Your task to perform on an android device: set default search engine in the chrome app Image 0: 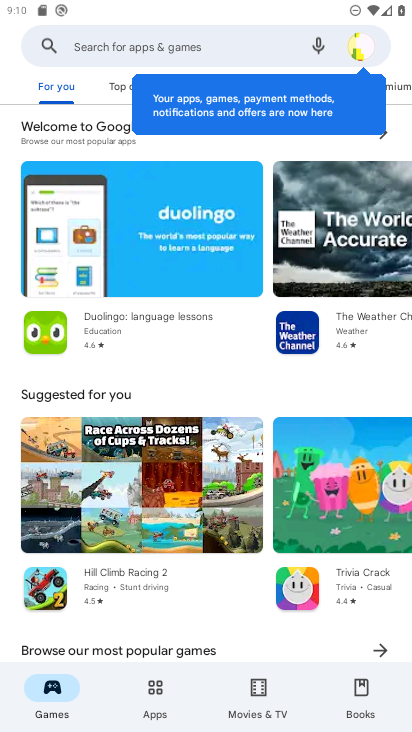
Step 0: press home button
Your task to perform on an android device: set default search engine in the chrome app Image 1: 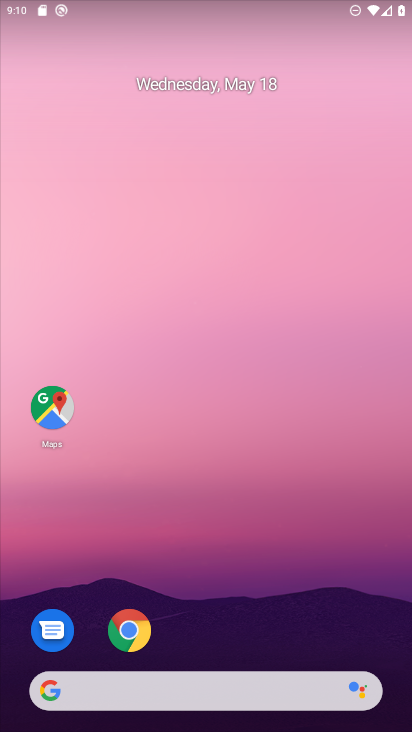
Step 1: click (151, 627)
Your task to perform on an android device: set default search engine in the chrome app Image 2: 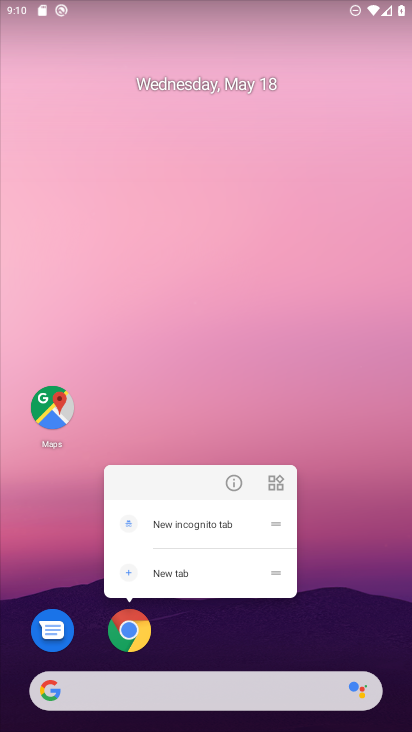
Step 2: click (131, 625)
Your task to perform on an android device: set default search engine in the chrome app Image 3: 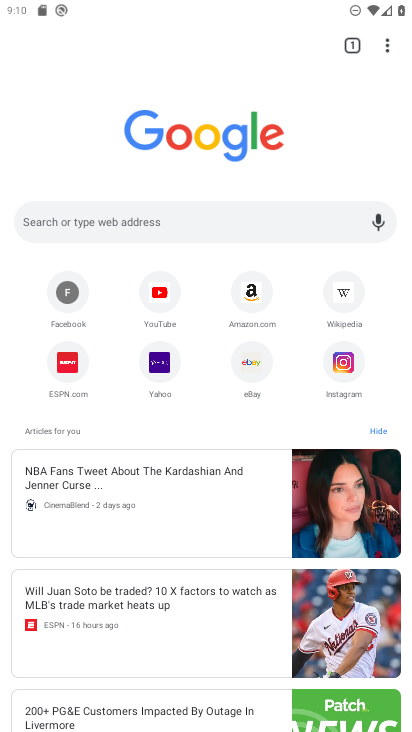
Step 3: click (388, 48)
Your task to perform on an android device: set default search engine in the chrome app Image 4: 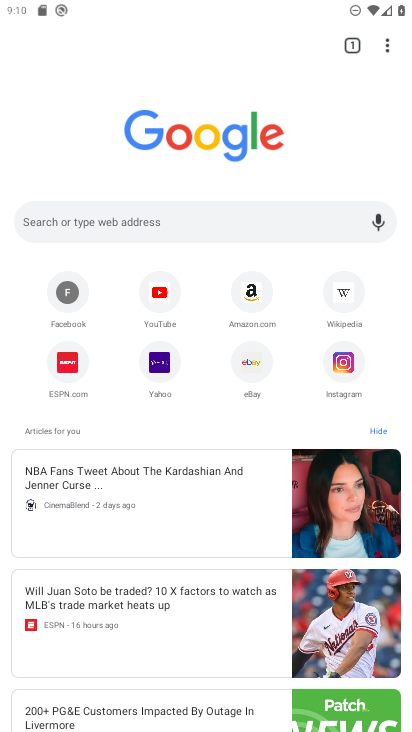
Step 4: drag from (388, 48) to (204, 379)
Your task to perform on an android device: set default search engine in the chrome app Image 5: 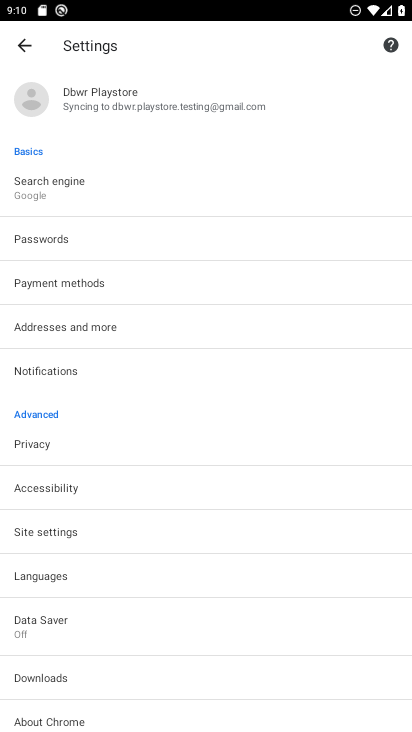
Step 5: click (54, 189)
Your task to perform on an android device: set default search engine in the chrome app Image 6: 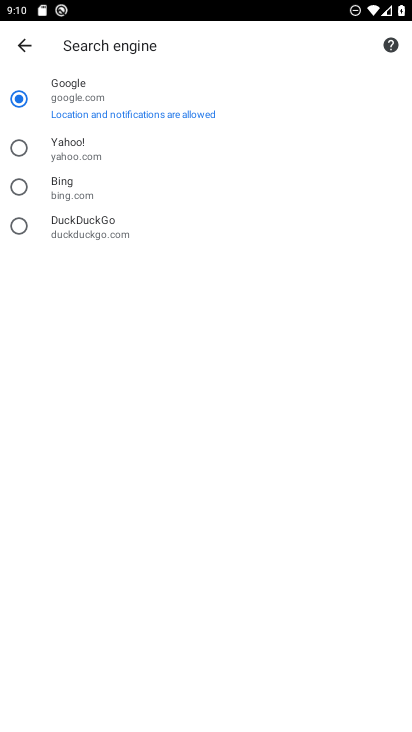
Step 6: click (61, 95)
Your task to perform on an android device: set default search engine in the chrome app Image 7: 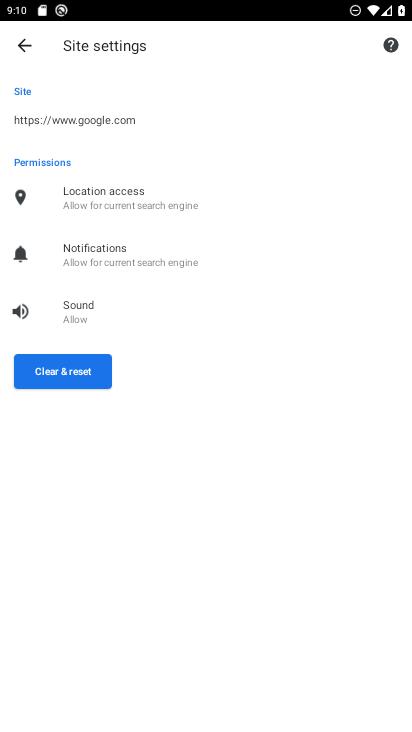
Step 7: task complete